Your task to perform on an android device: open chrome and create a bookmark for the current page Image 0: 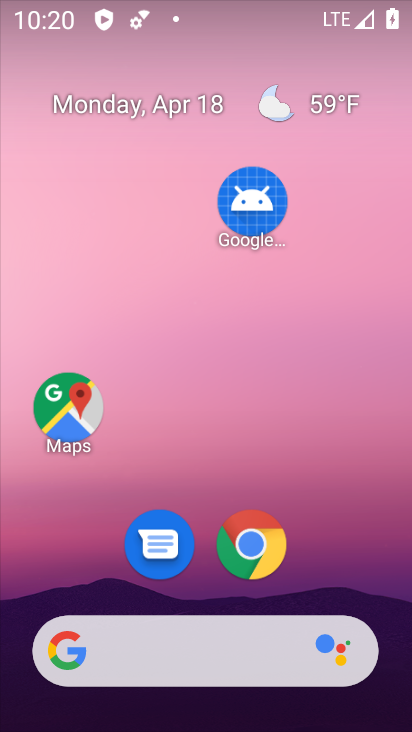
Step 0: drag from (300, 466) to (317, 267)
Your task to perform on an android device: open chrome and create a bookmark for the current page Image 1: 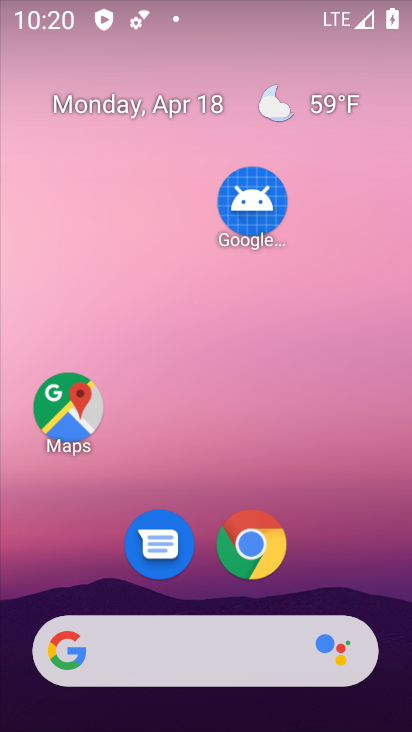
Step 1: drag from (360, 317) to (361, 244)
Your task to perform on an android device: open chrome and create a bookmark for the current page Image 2: 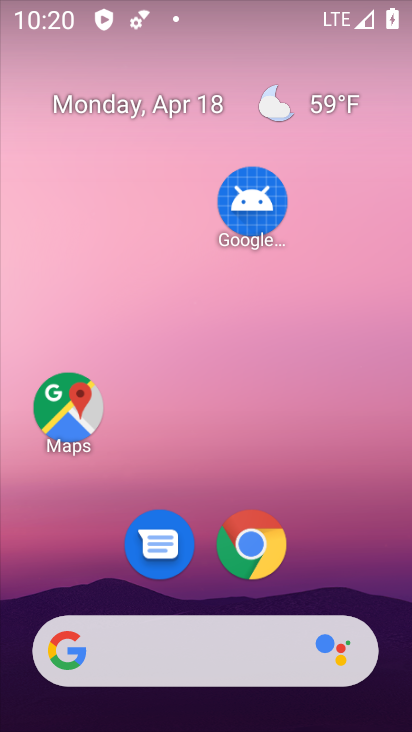
Step 2: click (261, 538)
Your task to perform on an android device: open chrome and create a bookmark for the current page Image 3: 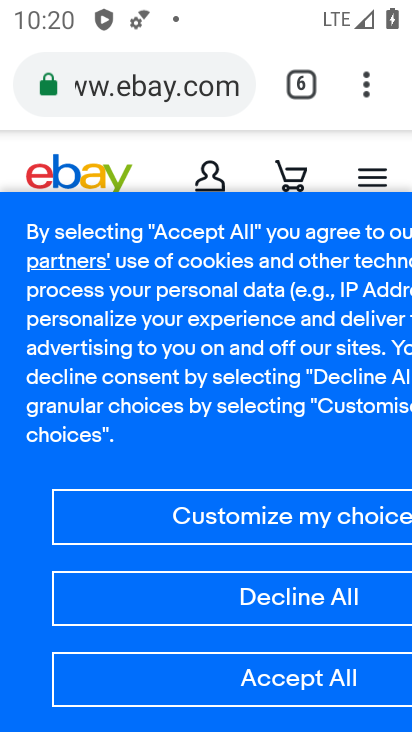
Step 3: click (353, 79)
Your task to perform on an android device: open chrome and create a bookmark for the current page Image 4: 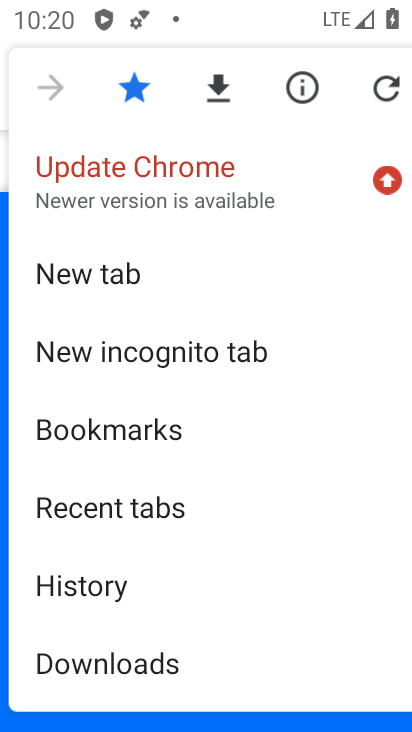
Step 4: click (150, 442)
Your task to perform on an android device: open chrome and create a bookmark for the current page Image 5: 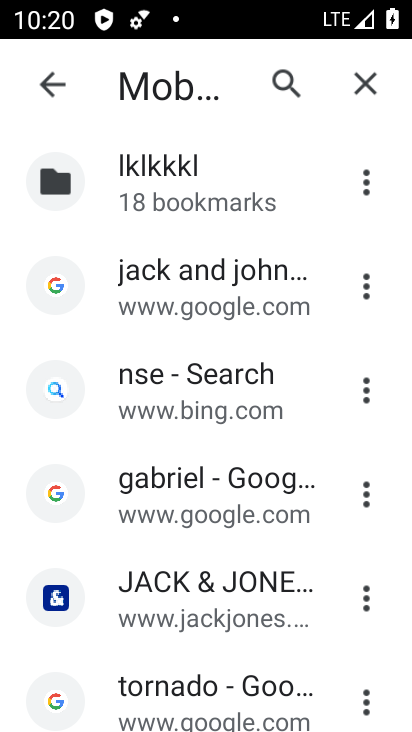
Step 5: click (206, 294)
Your task to perform on an android device: open chrome and create a bookmark for the current page Image 6: 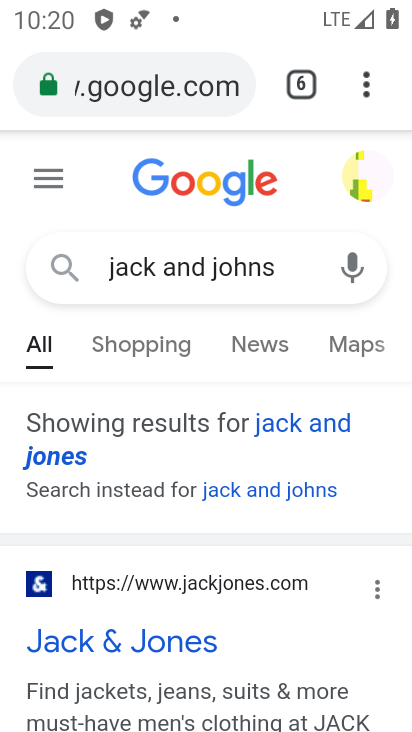
Step 6: click (355, 78)
Your task to perform on an android device: open chrome and create a bookmark for the current page Image 7: 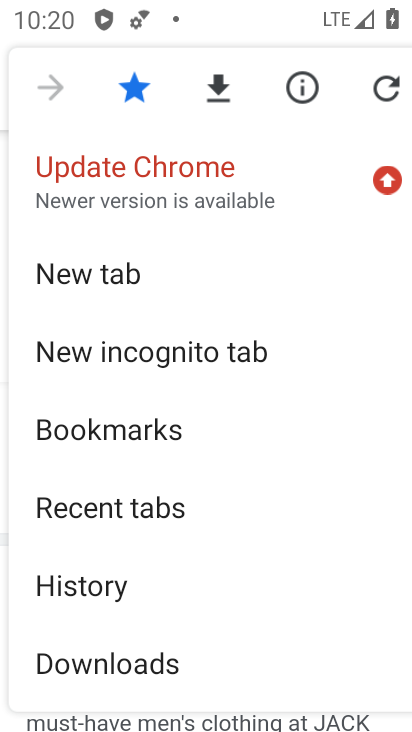
Step 7: click (137, 99)
Your task to perform on an android device: open chrome and create a bookmark for the current page Image 8: 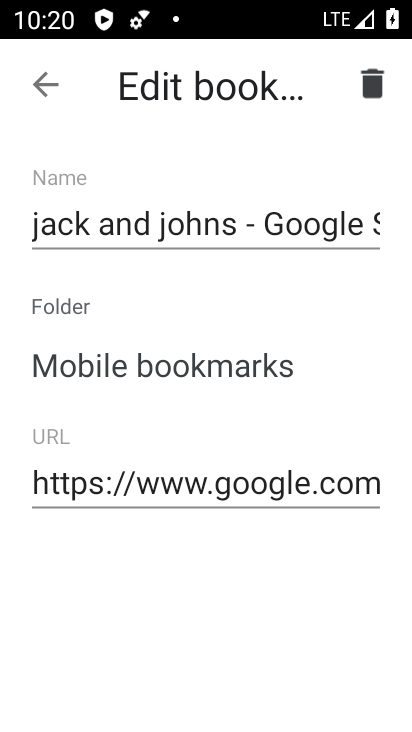
Step 8: click (31, 100)
Your task to perform on an android device: open chrome and create a bookmark for the current page Image 9: 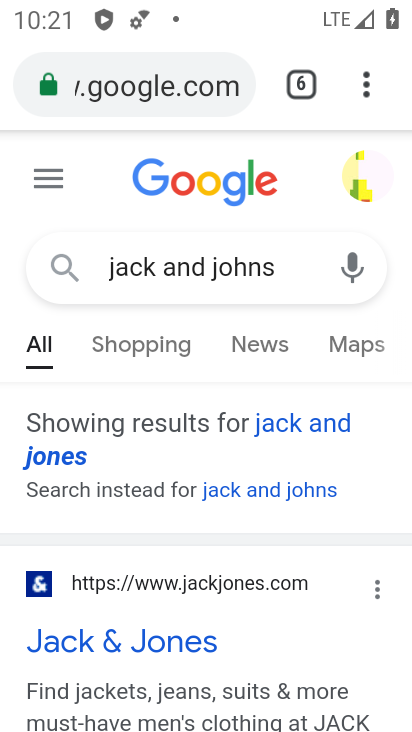
Step 9: click (359, 95)
Your task to perform on an android device: open chrome and create a bookmark for the current page Image 10: 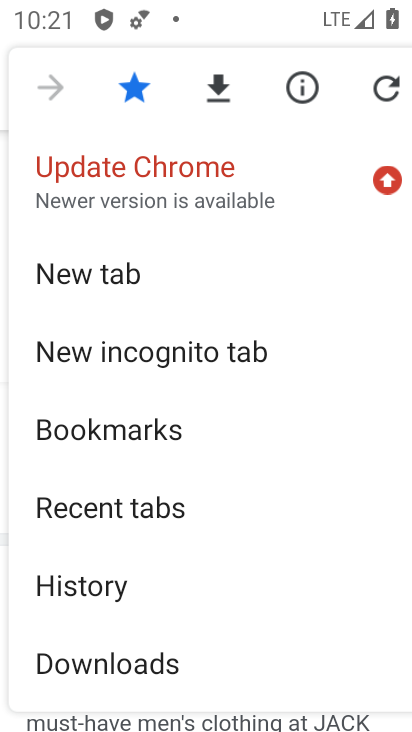
Step 10: click (164, 439)
Your task to perform on an android device: open chrome and create a bookmark for the current page Image 11: 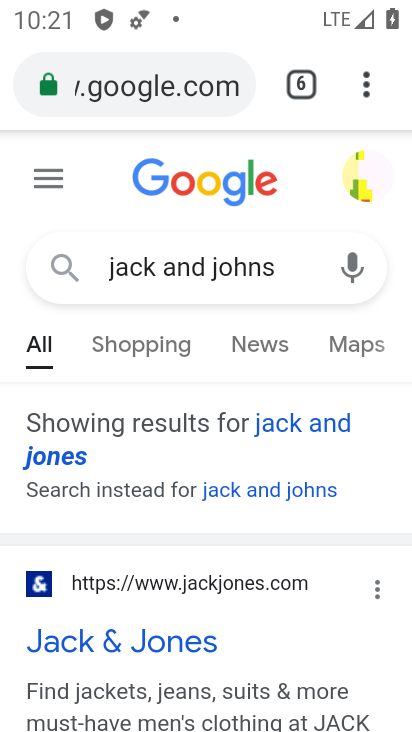
Step 11: click (164, 439)
Your task to perform on an android device: open chrome and create a bookmark for the current page Image 12: 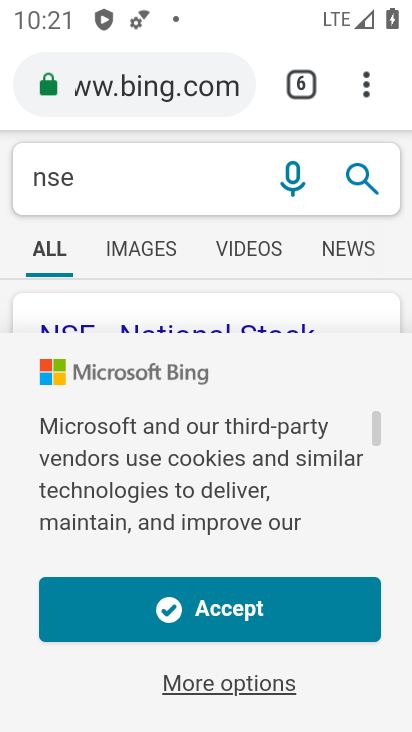
Step 12: click (352, 80)
Your task to perform on an android device: open chrome and create a bookmark for the current page Image 13: 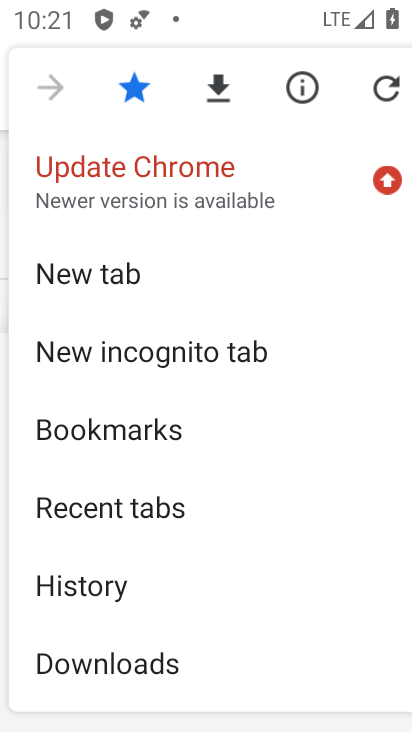
Step 13: task complete